Your task to perform on an android device: Is it going to rain tomorrow? Image 0: 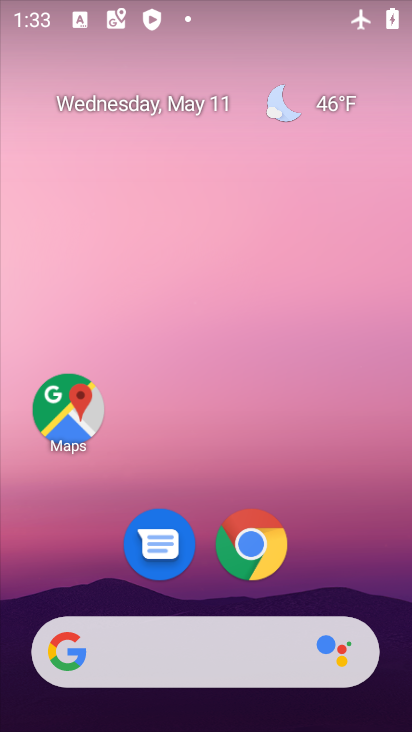
Step 0: click (333, 97)
Your task to perform on an android device: Is it going to rain tomorrow? Image 1: 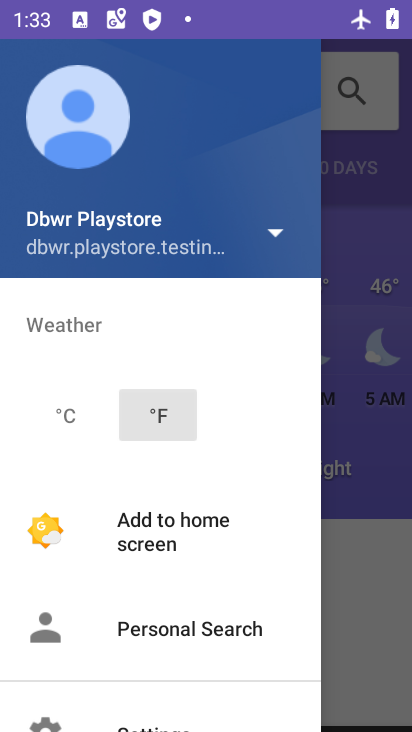
Step 1: click (381, 275)
Your task to perform on an android device: Is it going to rain tomorrow? Image 2: 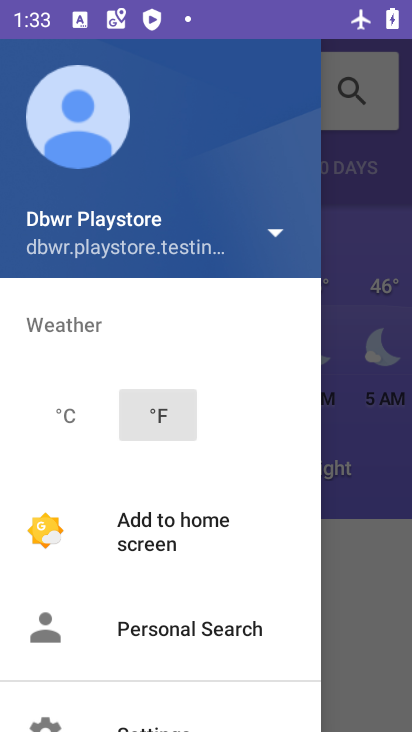
Step 2: click (354, 185)
Your task to perform on an android device: Is it going to rain tomorrow? Image 3: 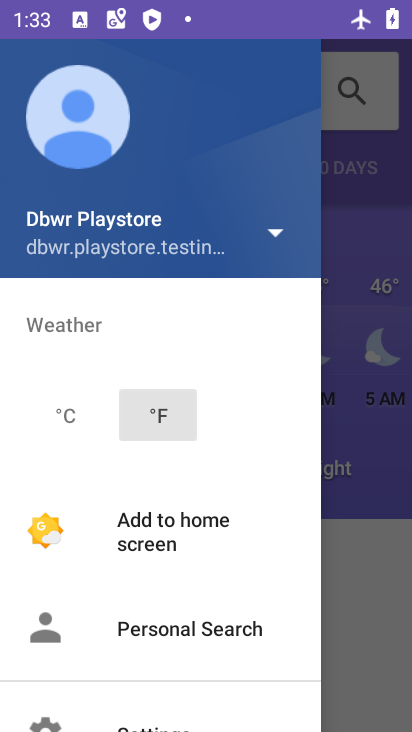
Step 3: click (354, 185)
Your task to perform on an android device: Is it going to rain tomorrow? Image 4: 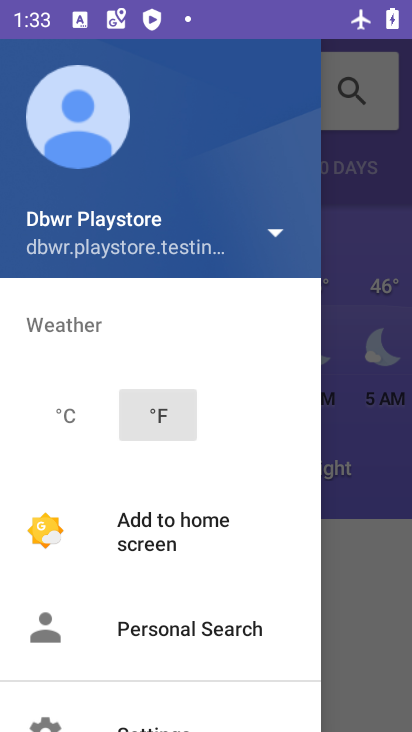
Step 4: click (354, 185)
Your task to perform on an android device: Is it going to rain tomorrow? Image 5: 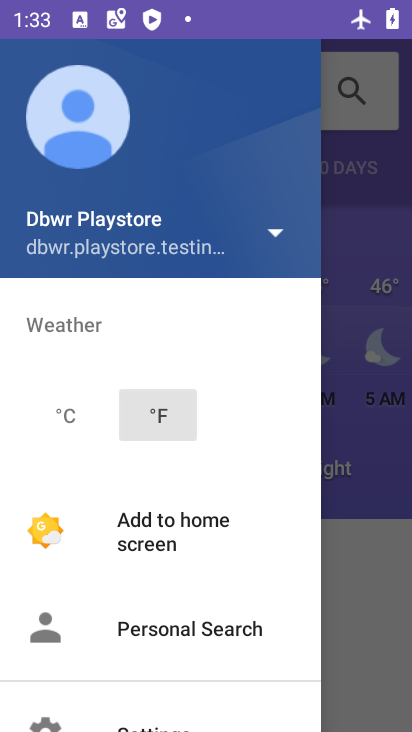
Step 5: click (396, 305)
Your task to perform on an android device: Is it going to rain tomorrow? Image 6: 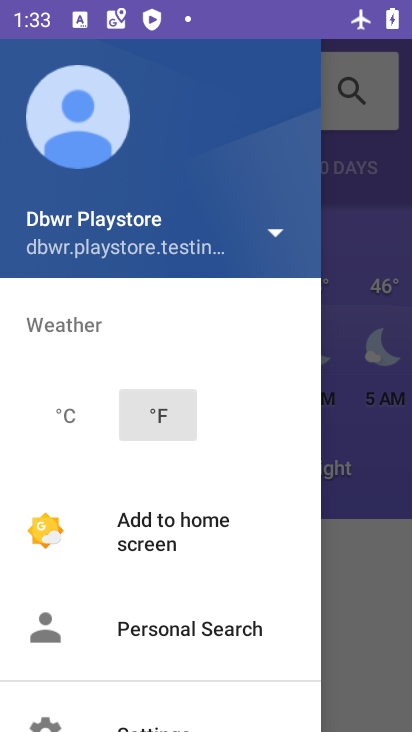
Step 6: click (369, 154)
Your task to perform on an android device: Is it going to rain tomorrow? Image 7: 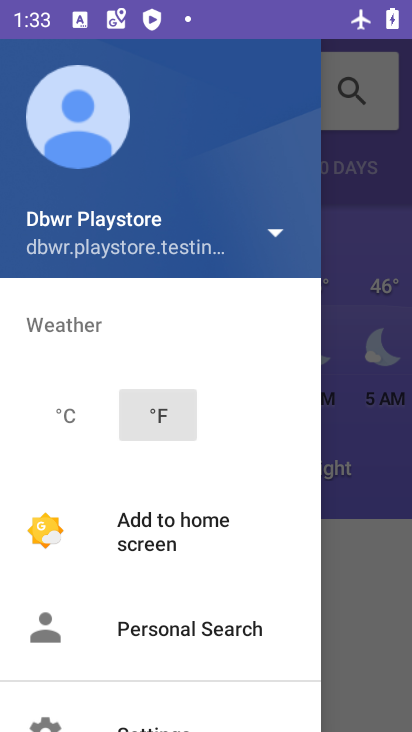
Step 7: press back button
Your task to perform on an android device: Is it going to rain tomorrow? Image 8: 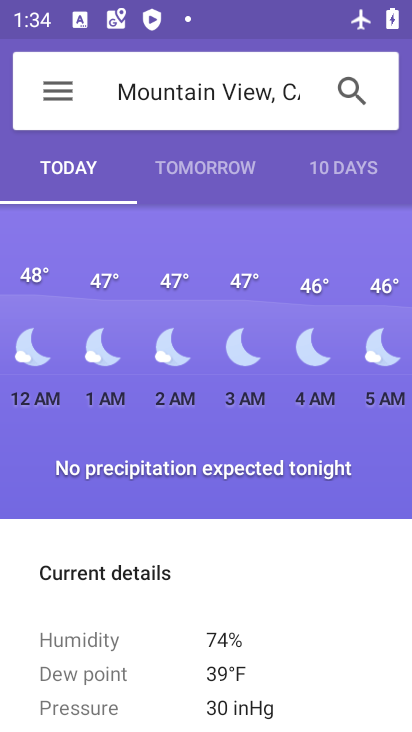
Step 8: click (197, 159)
Your task to perform on an android device: Is it going to rain tomorrow? Image 9: 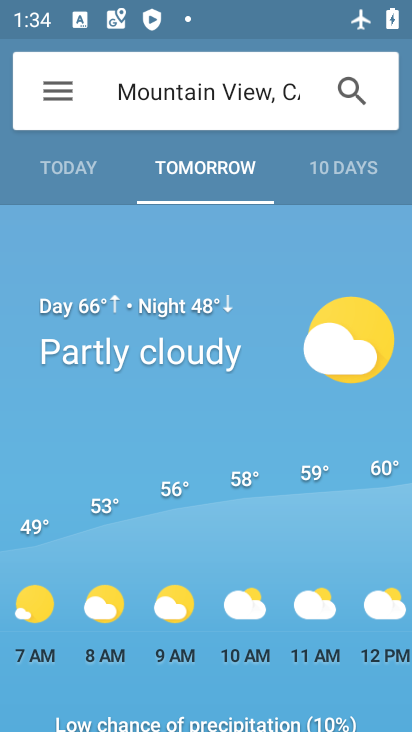
Step 9: task complete